Your task to perform on an android device: check the backup settings in the google photos Image 0: 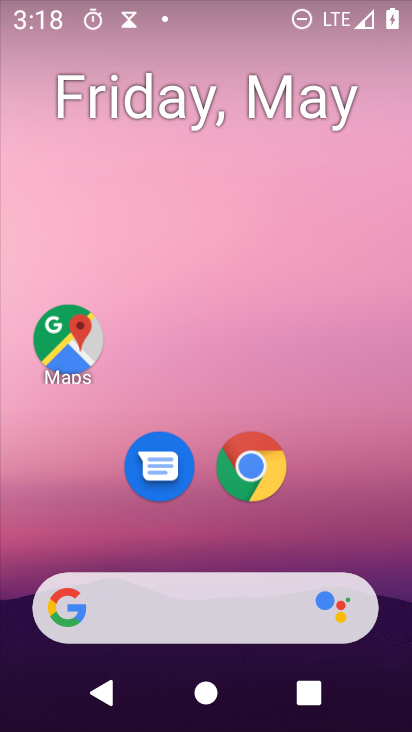
Step 0: drag from (349, 520) to (376, 11)
Your task to perform on an android device: check the backup settings in the google photos Image 1: 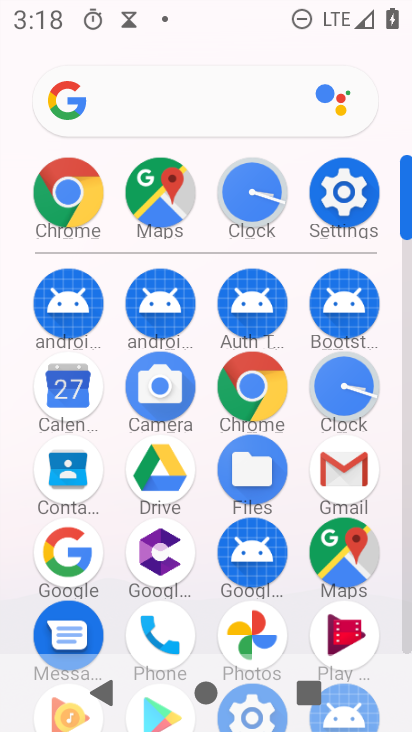
Step 1: drag from (398, 588) to (404, 295)
Your task to perform on an android device: check the backup settings in the google photos Image 2: 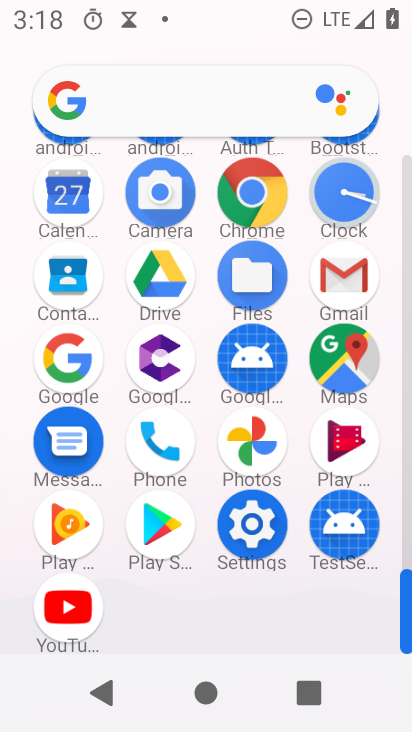
Step 2: click (248, 424)
Your task to perform on an android device: check the backup settings in the google photos Image 3: 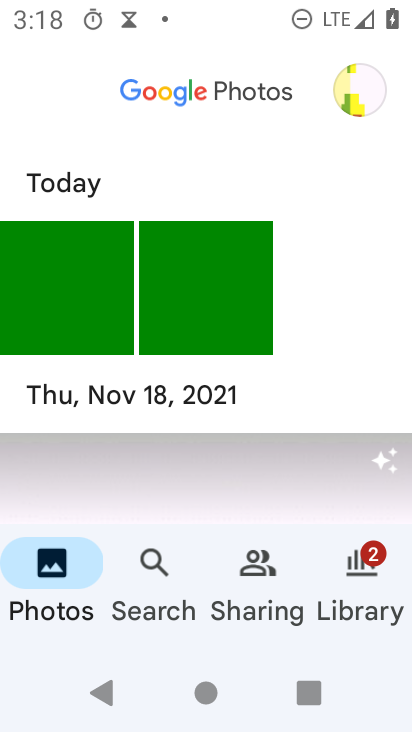
Step 3: drag from (292, 232) to (337, 461)
Your task to perform on an android device: check the backup settings in the google photos Image 4: 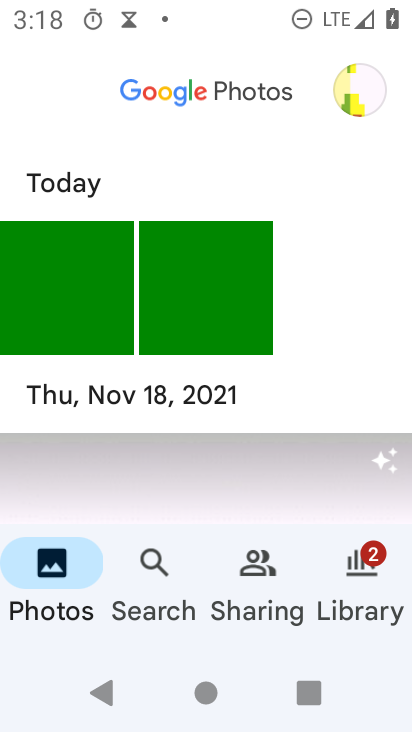
Step 4: click (355, 76)
Your task to perform on an android device: check the backup settings in the google photos Image 5: 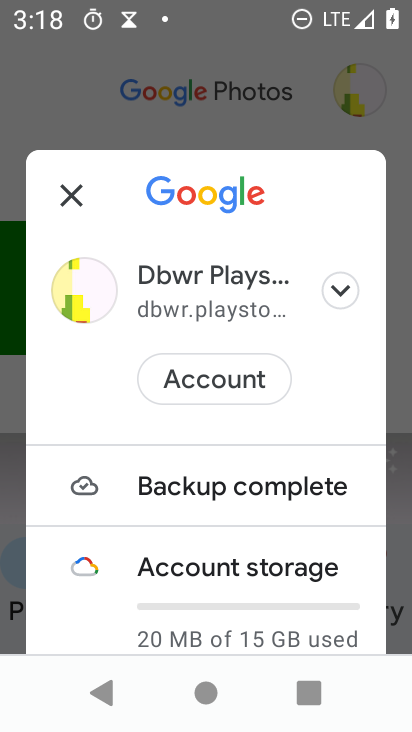
Step 5: click (271, 481)
Your task to perform on an android device: check the backup settings in the google photos Image 6: 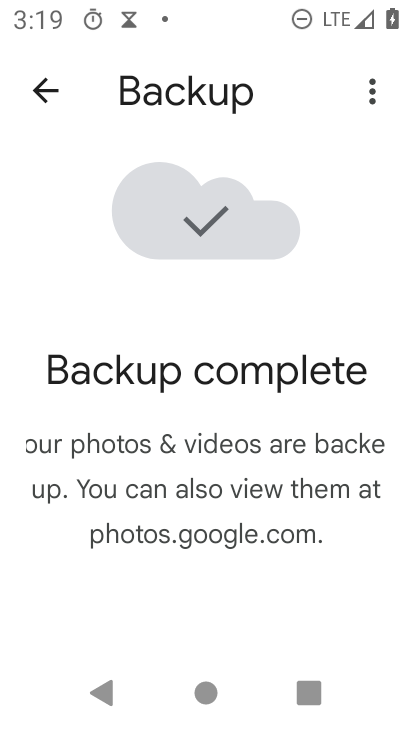
Step 6: task complete